Your task to perform on an android device: Open Yahoo.com Image 0: 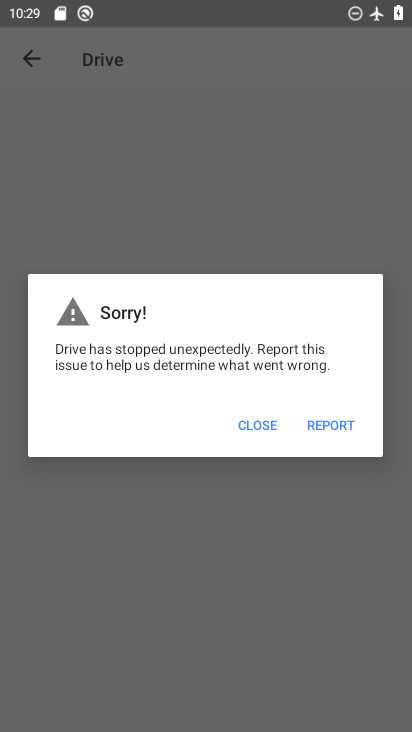
Step 0: press home button
Your task to perform on an android device: Open Yahoo.com Image 1: 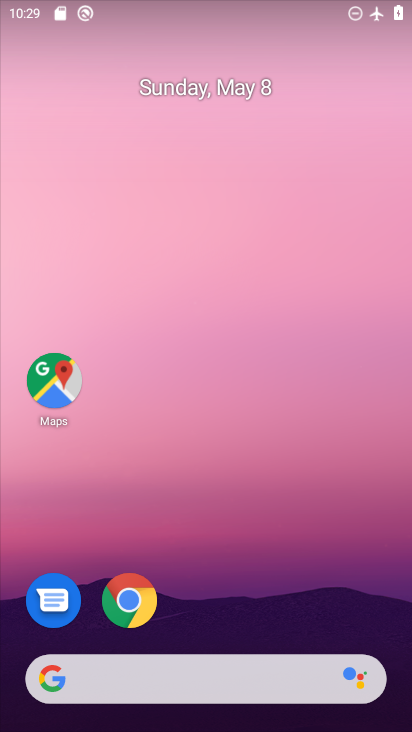
Step 1: click (126, 603)
Your task to perform on an android device: Open Yahoo.com Image 2: 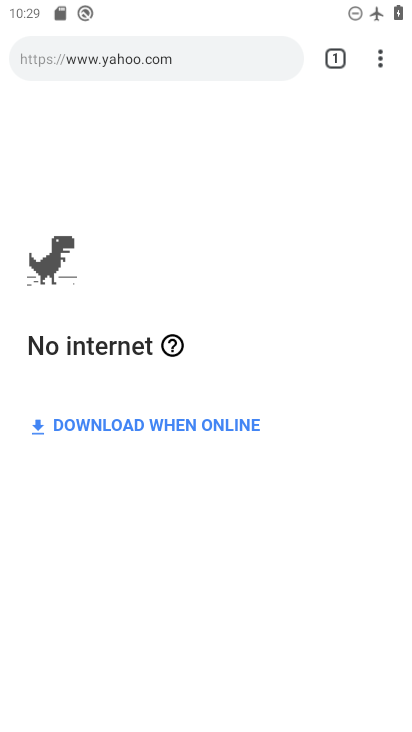
Step 2: task complete